Your task to perform on an android device: uninstall "Clock" Image 0: 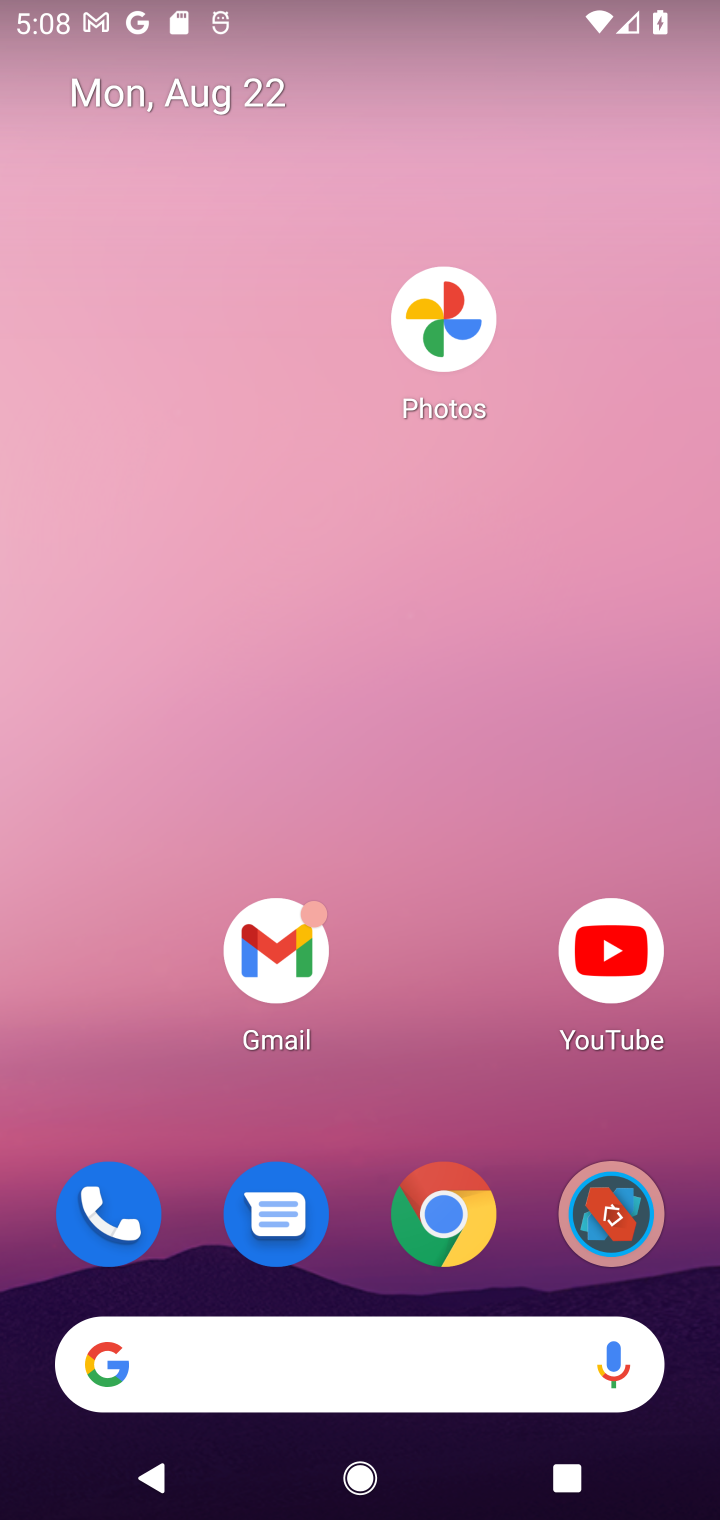
Step 0: drag from (534, 1181) to (466, 160)
Your task to perform on an android device: uninstall "Clock" Image 1: 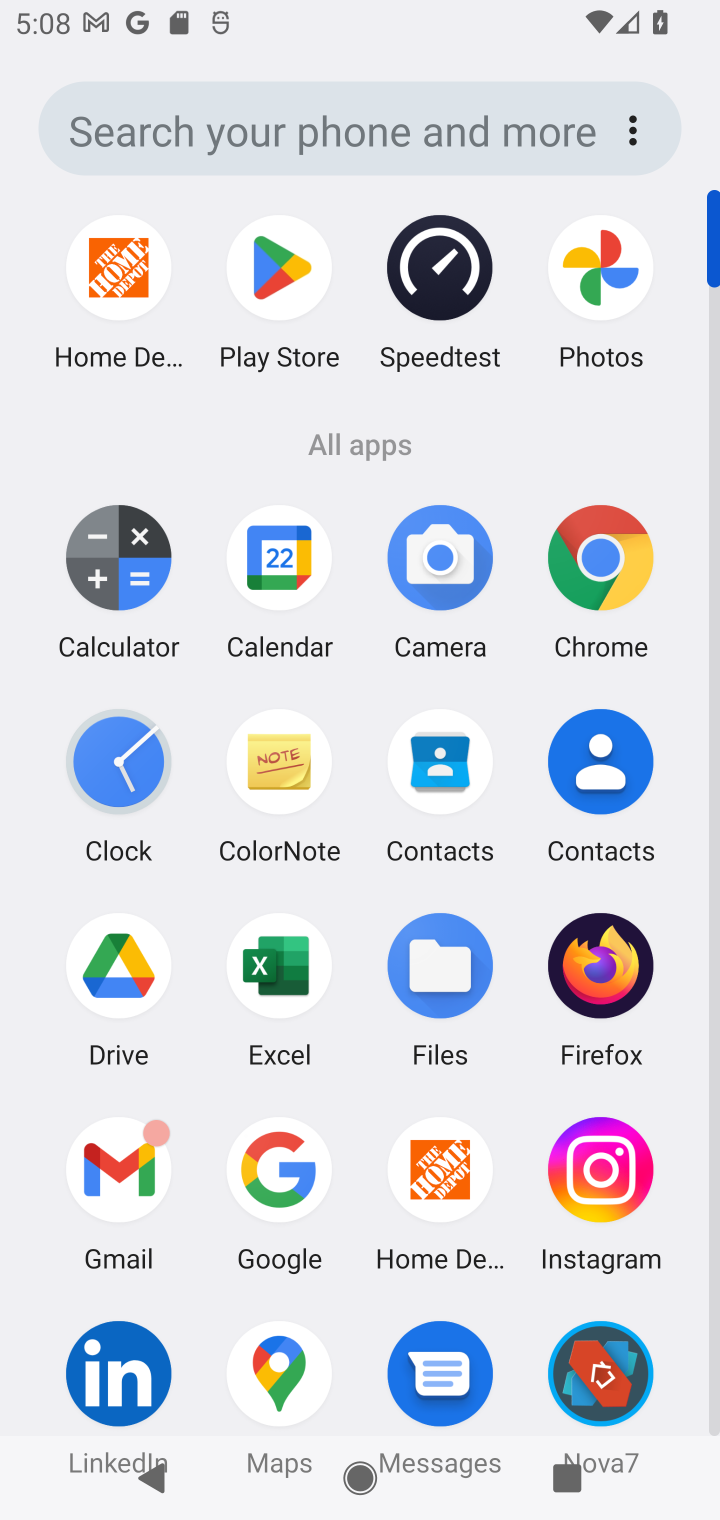
Step 1: click (714, 1393)
Your task to perform on an android device: uninstall "Clock" Image 2: 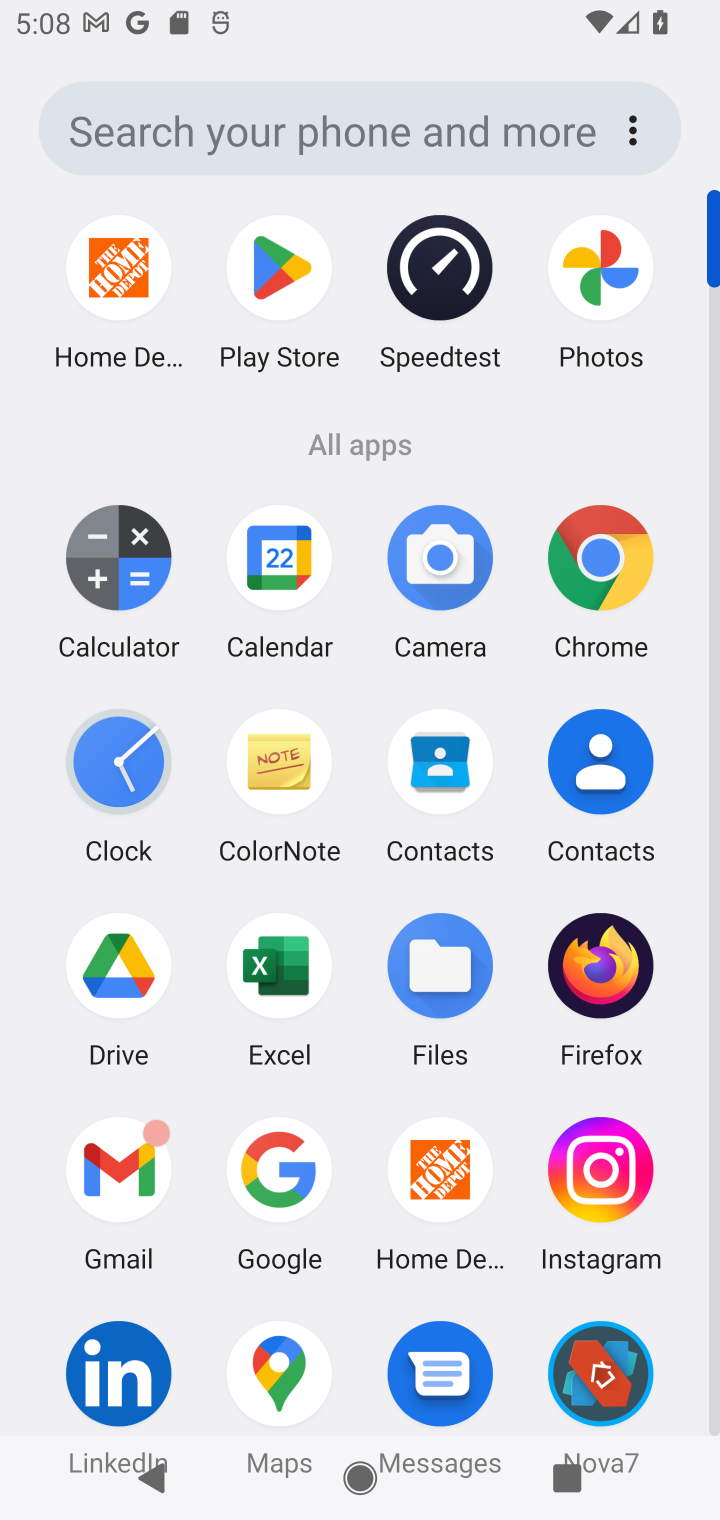
Step 2: drag from (714, 1393) to (709, 1305)
Your task to perform on an android device: uninstall "Clock" Image 3: 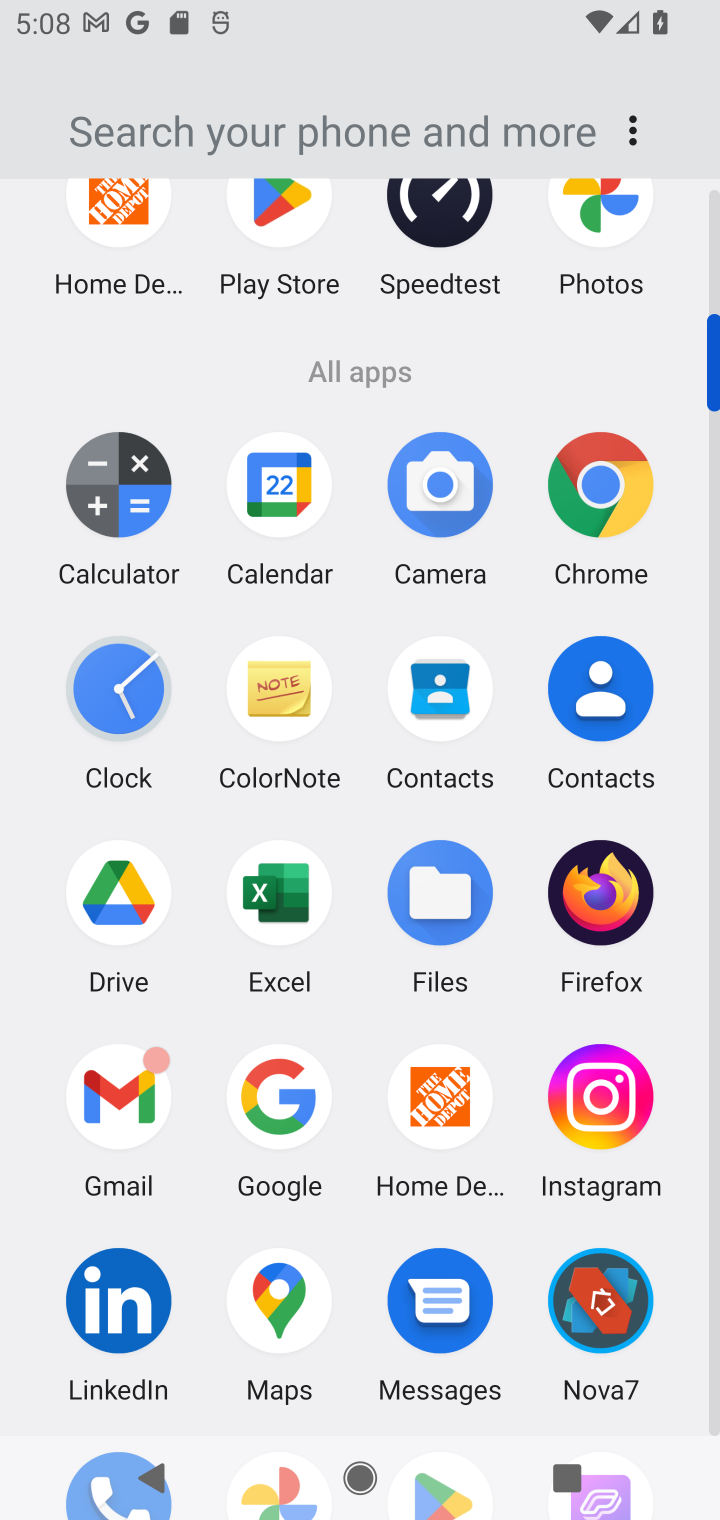
Step 3: drag from (675, 1408) to (640, 446)
Your task to perform on an android device: uninstall "Clock" Image 4: 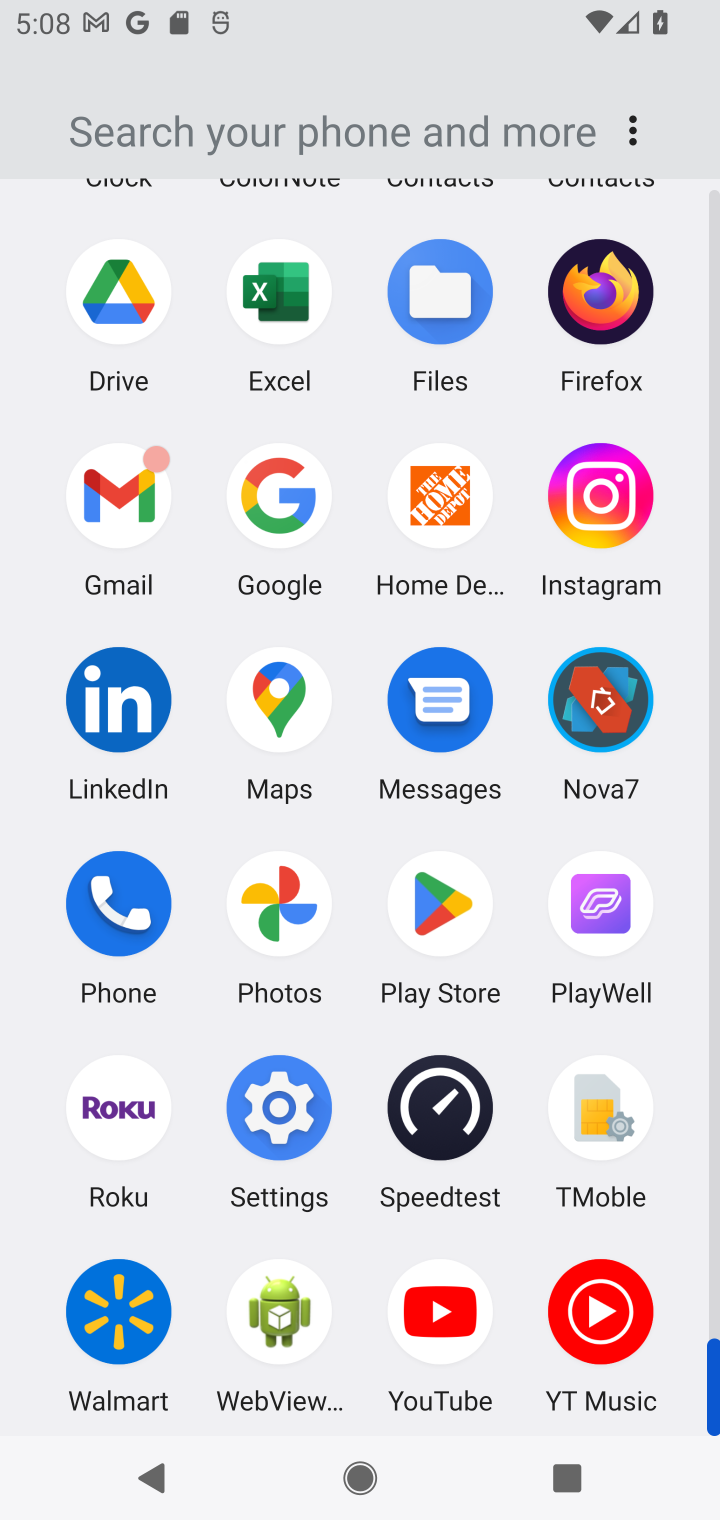
Step 4: drag from (359, 1344) to (356, 743)
Your task to perform on an android device: uninstall "Clock" Image 5: 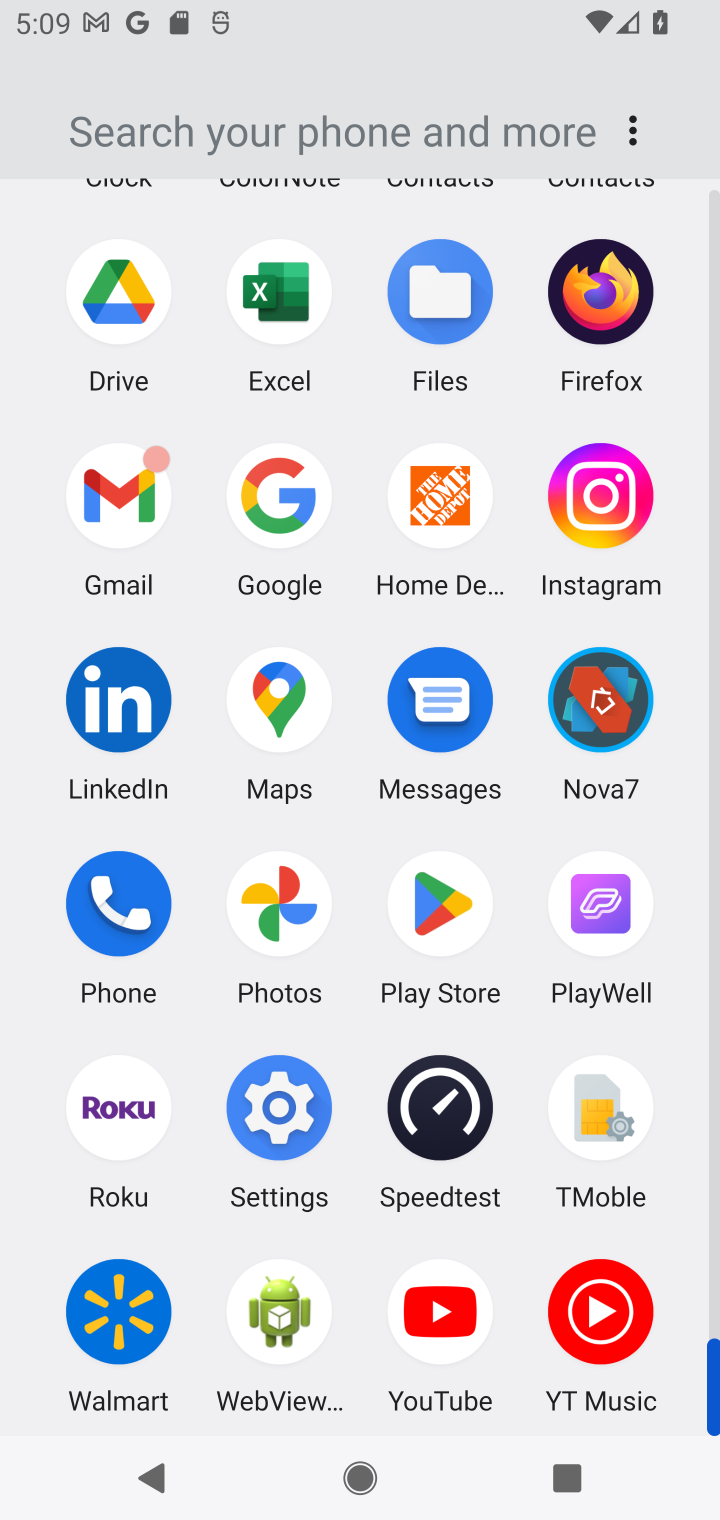
Step 5: click (442, 912)
Your task to perform on an android device: uninstall "Clock" Image 6: 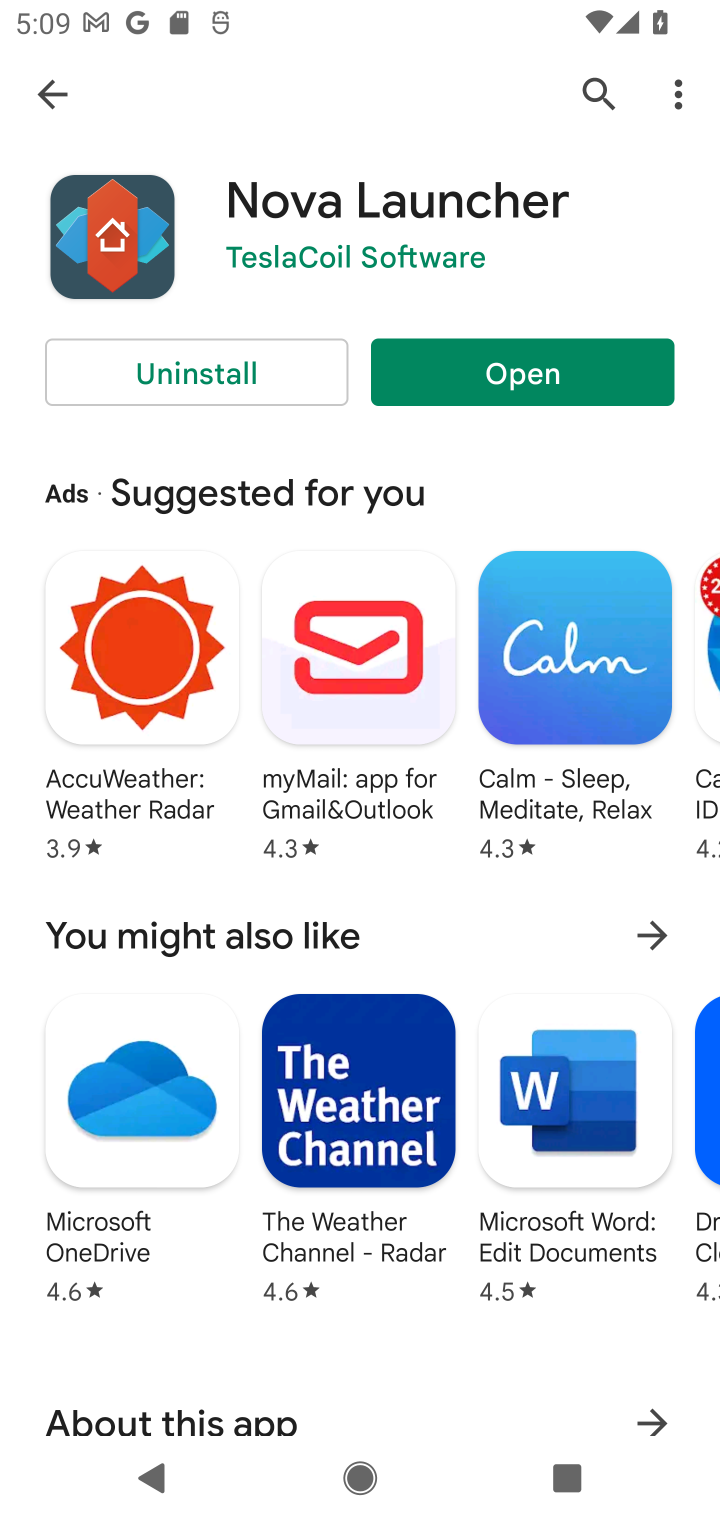
Step 6: click (600, 87)
Your task to perform on an android device: uninstall "Clock" Image 7: 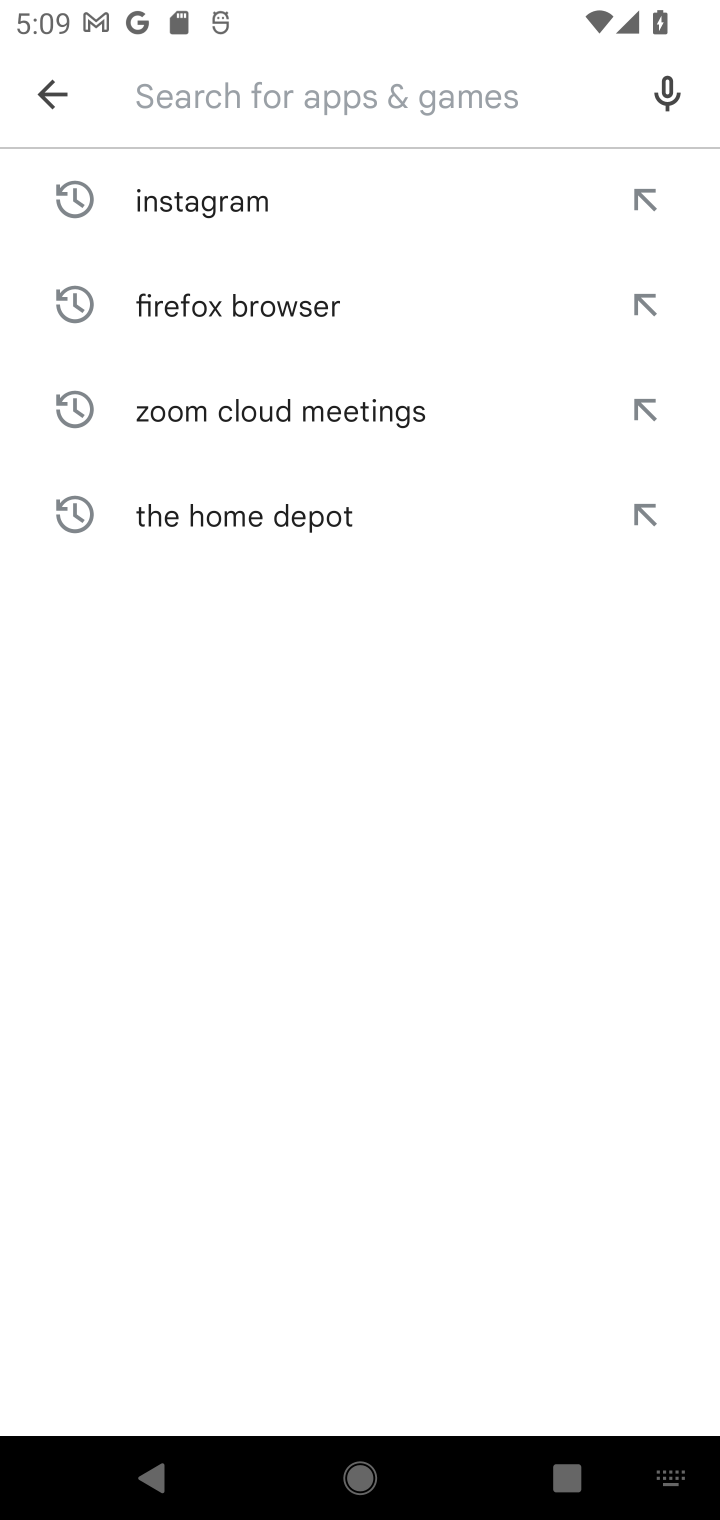
Step 7: type "clock"
Your task to perform on an android device: uninstall "Clock" Image 8: 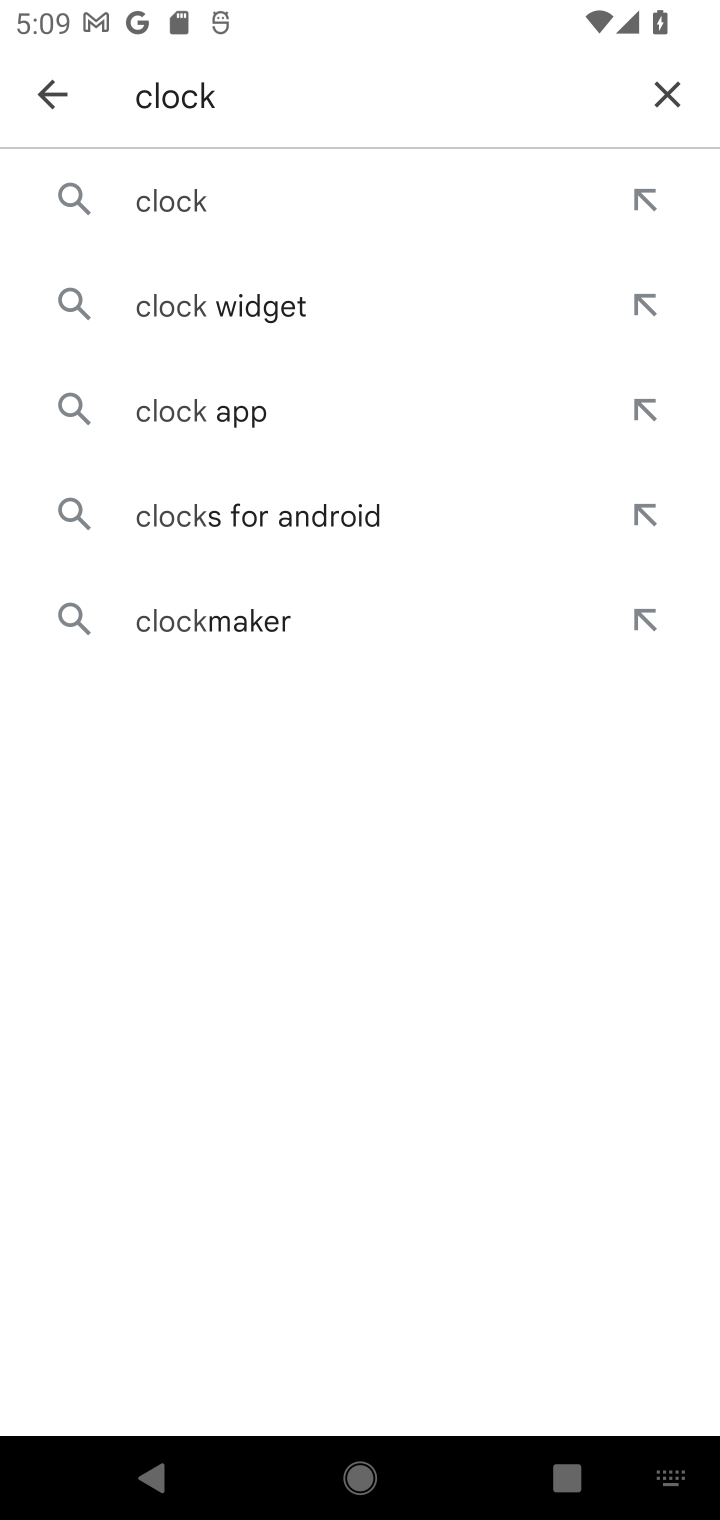
Step 8: click (203, 205)
Your task to perform on an android device: uninstall "Clock" Image 9: 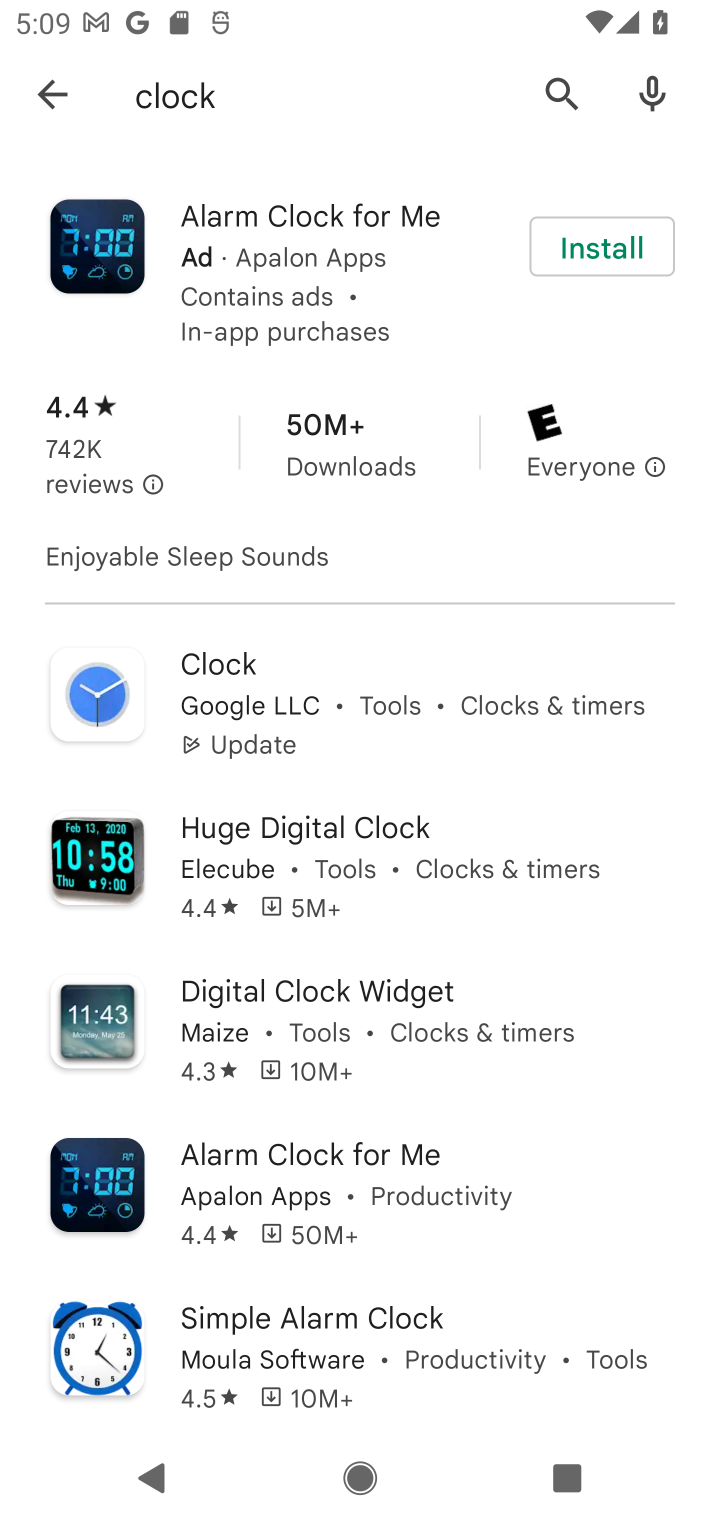
Step 9: click (244, 683)
Your task to perform on an android device: uninstall "Clock" Image 10: 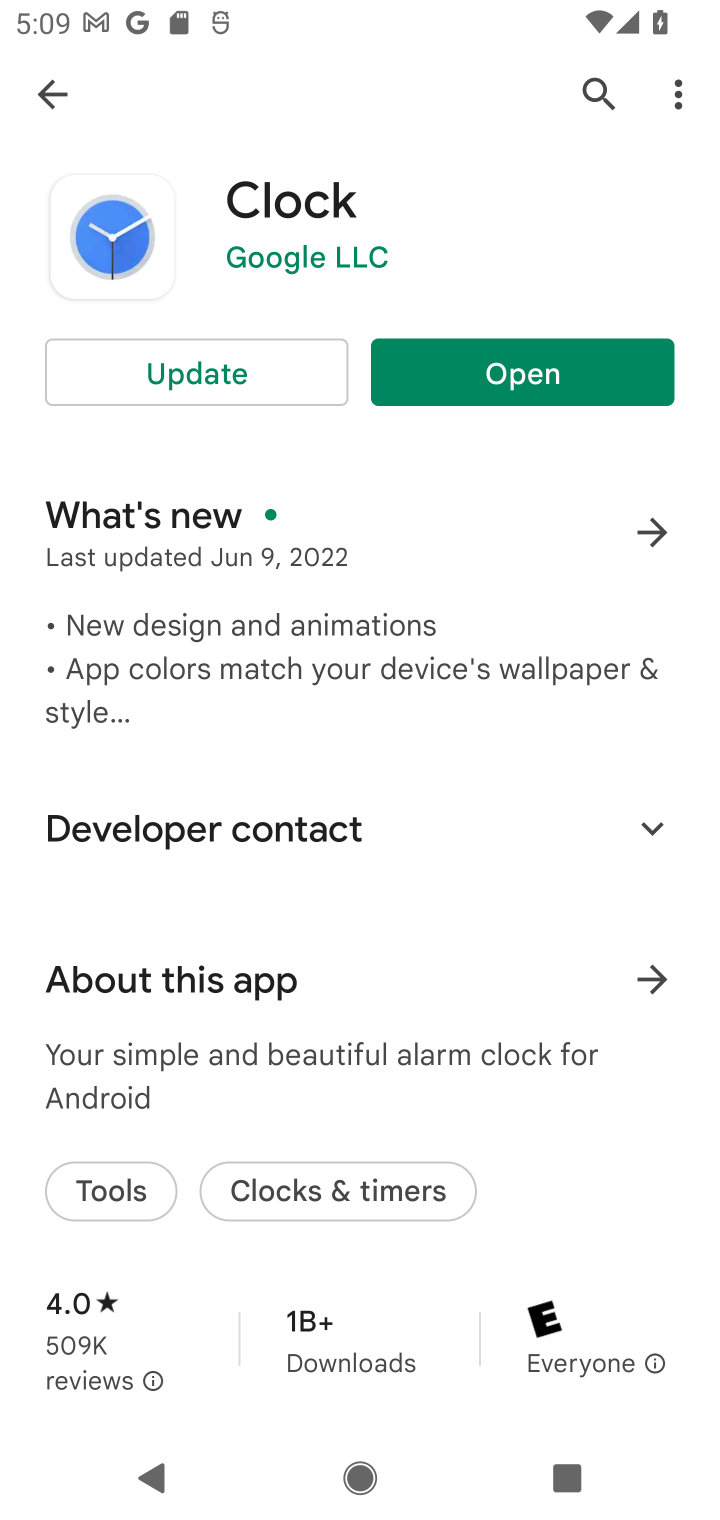
Step 10: click (250, 200)
Your task to perform on an android device: uninstall "Clock" Image 11: 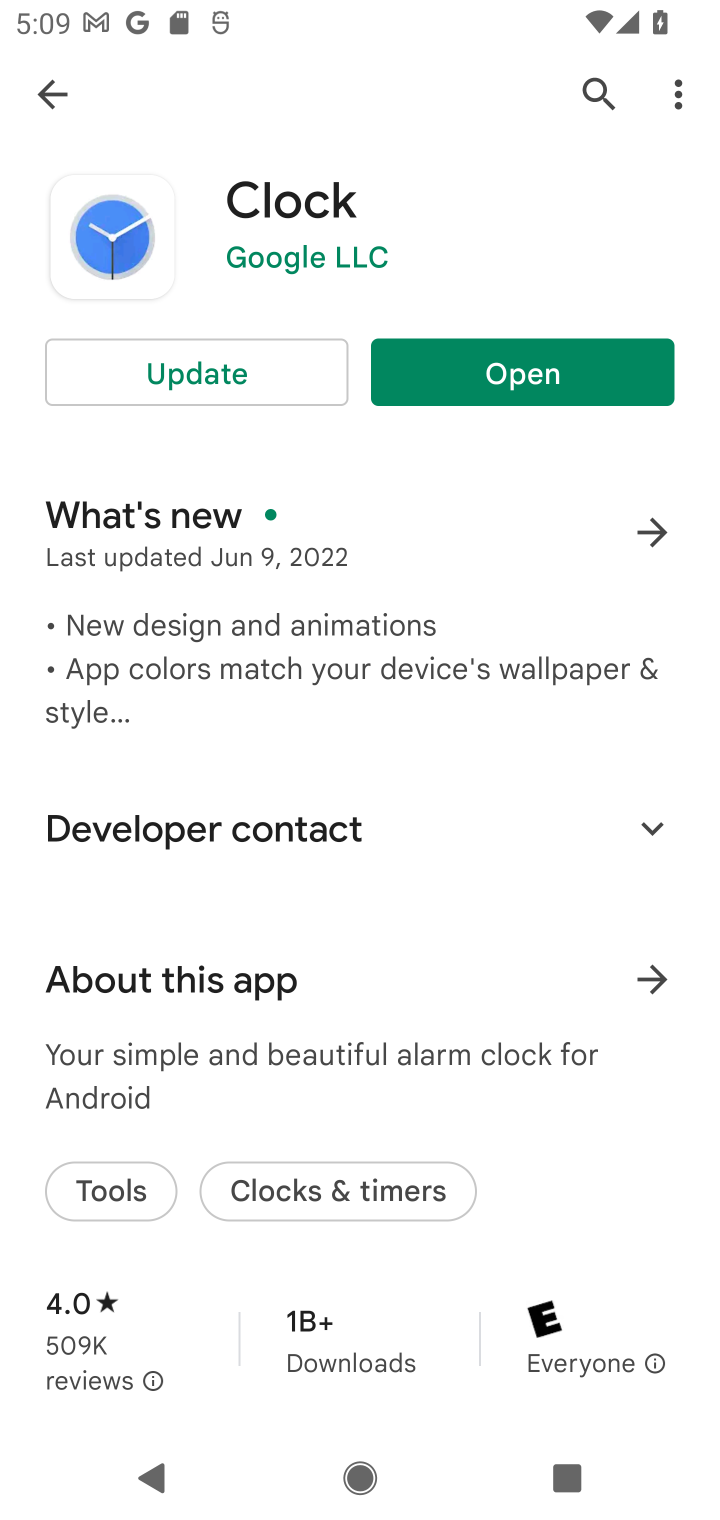
Step 11: click (679, 108)
Your task to perform on an android device: uninstall "Clock" Image 12: 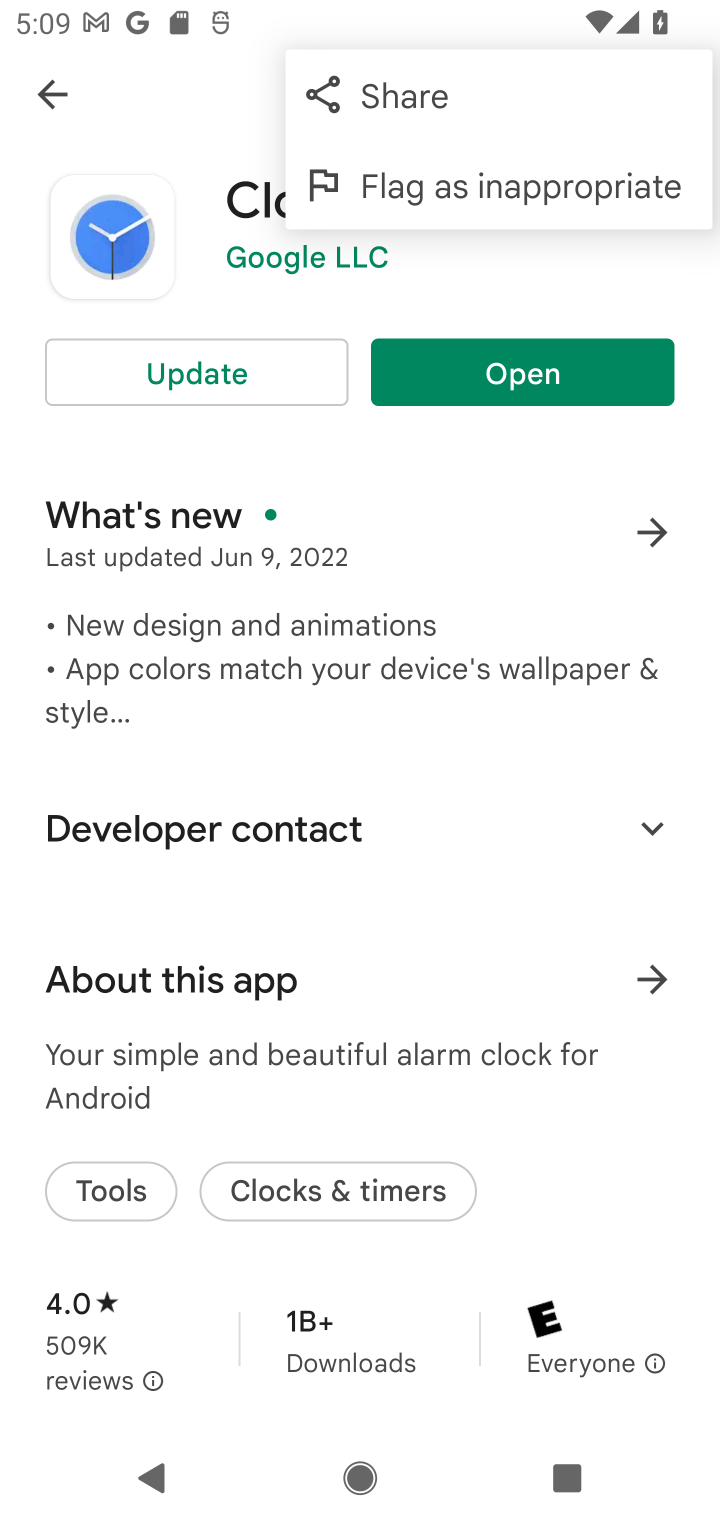
Step 12: click (179, 366)
Your task to perform on an android device: uninstall "Clock" Image 13: 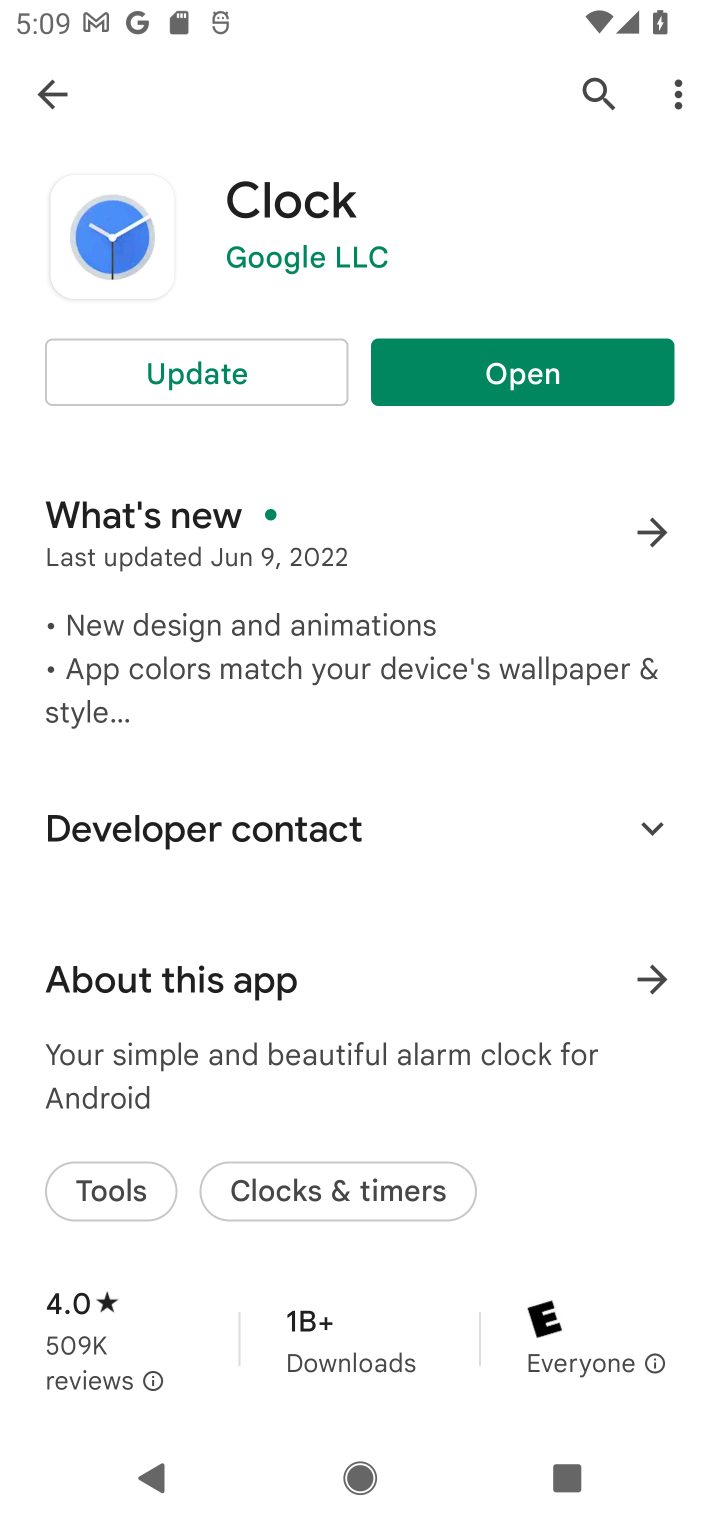
Step 13: click (197, 348)
Your task to perform on an android device: uninstall "Clock" Image 14: 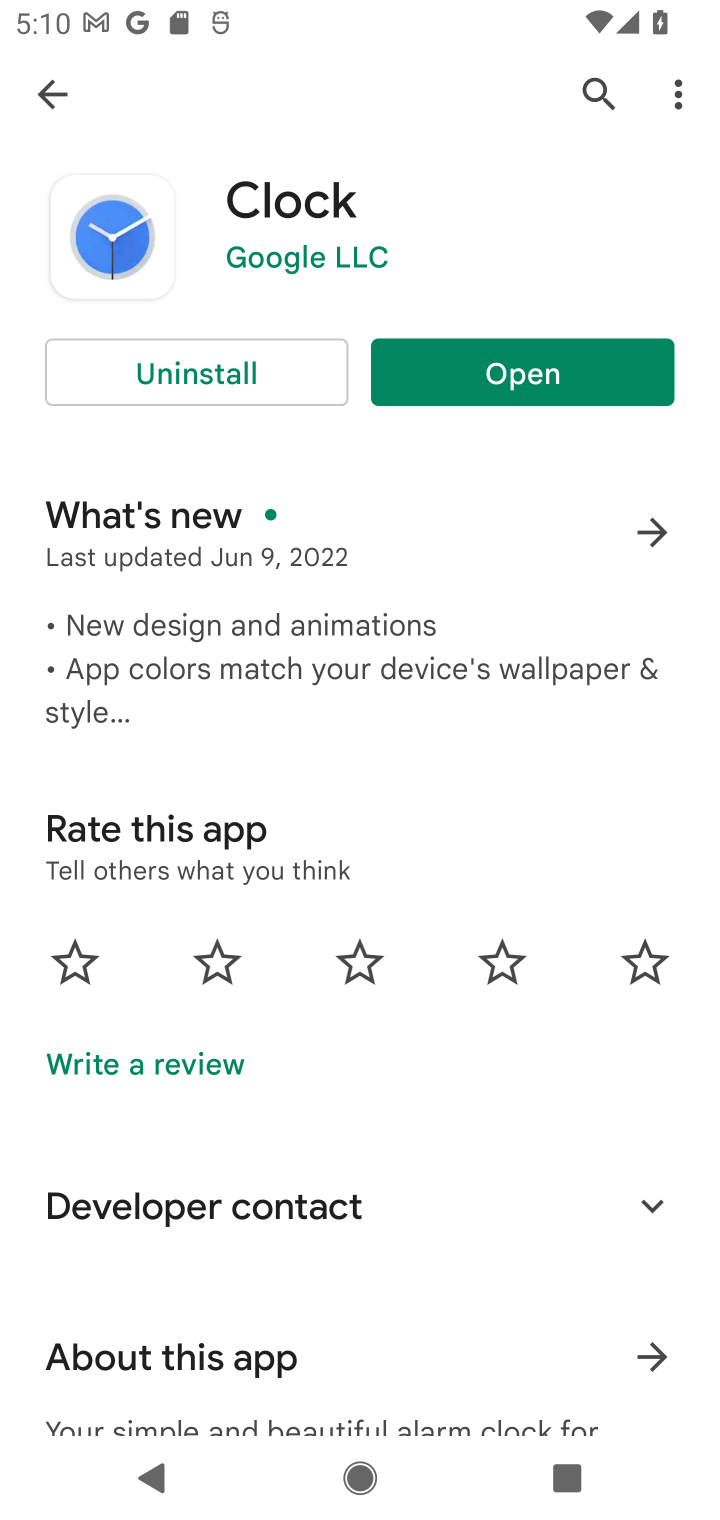
Step 14: click (194, 368)
Your task to perform on an android device: uninstall "Clock" Image 15: 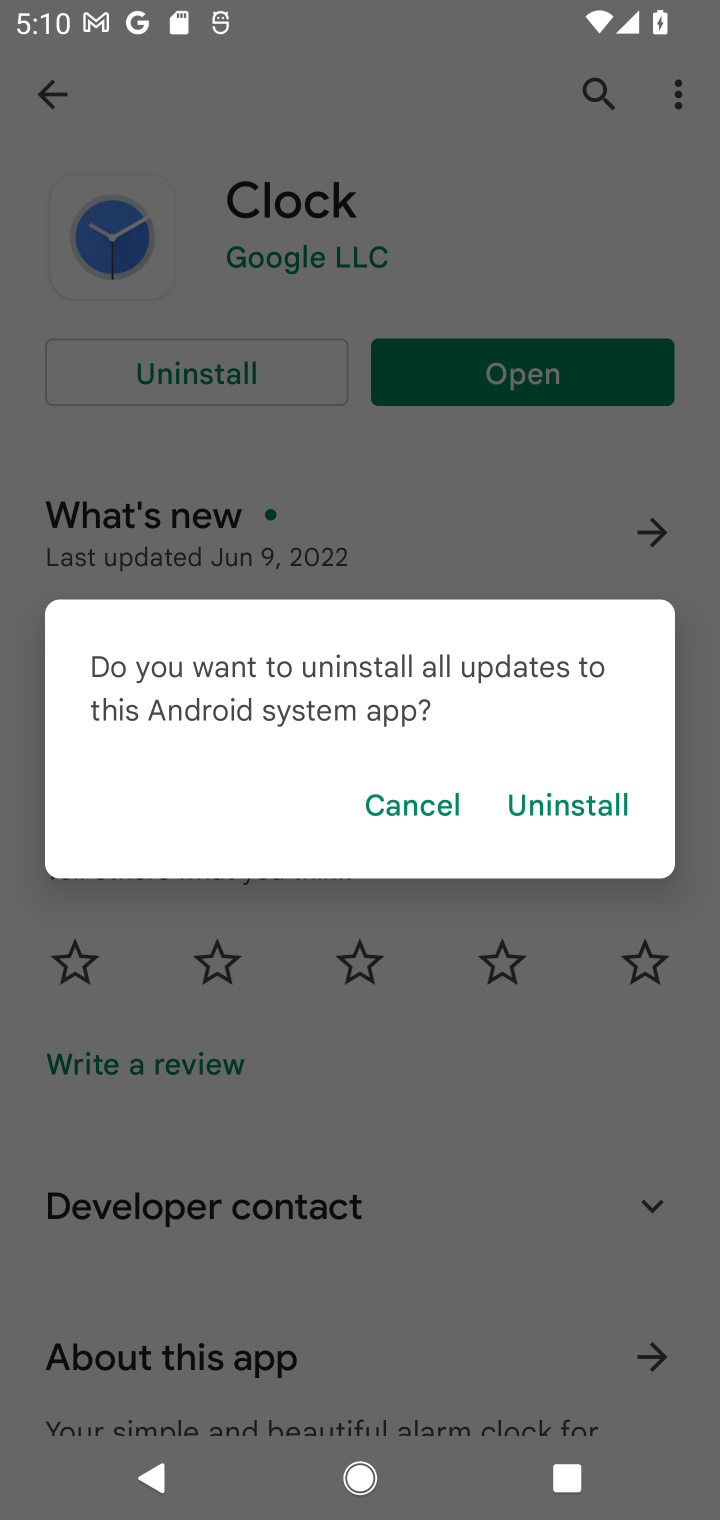
Step 15: click (556, 805)
Your task to perform on an android device: uninstall "Clock" Image 16: 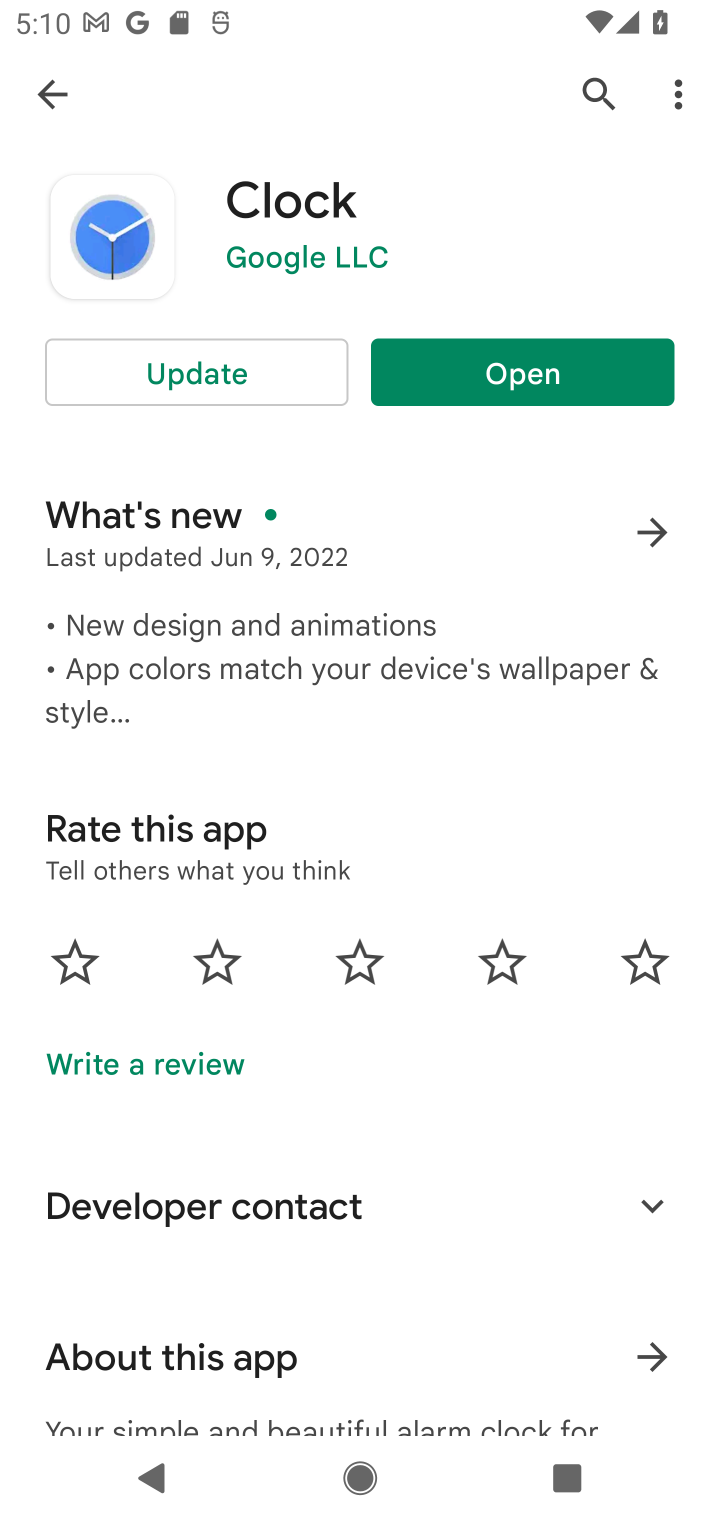
Step 16: task complete